Your task to perform on an android device: Show me recent news Image 0: 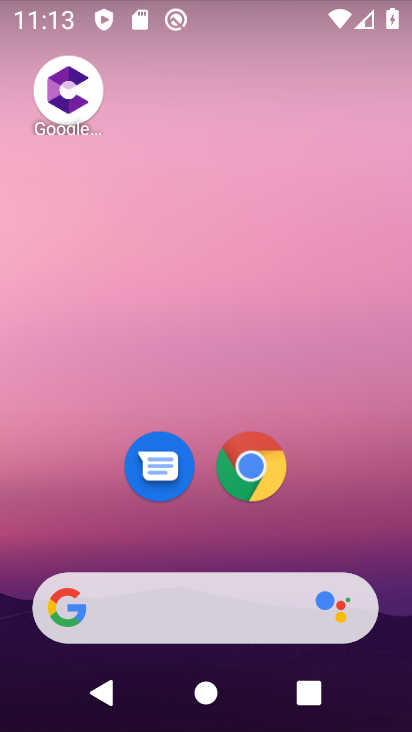
Step 0: drag from (209, 543) to (260, 180)
Your task to perform on an android device: Show me recent news Image 1: 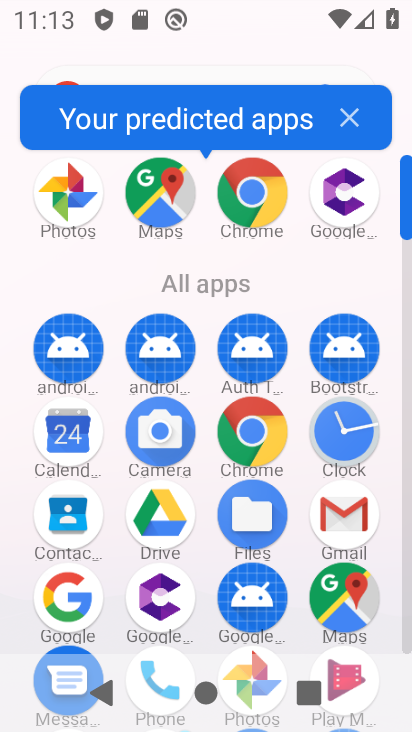
Step 1: click (69, 589)
Your task to perform on an android device: Show me recent news Image 2: 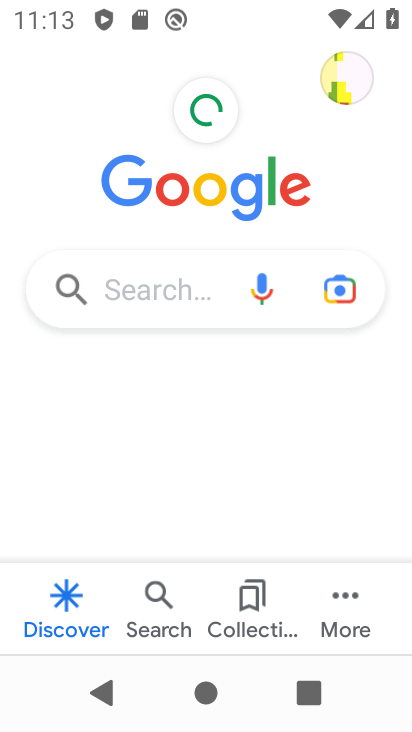
Step 2: click (118, 291)
Your task to perform on an android device: Show me recent news Image 3: 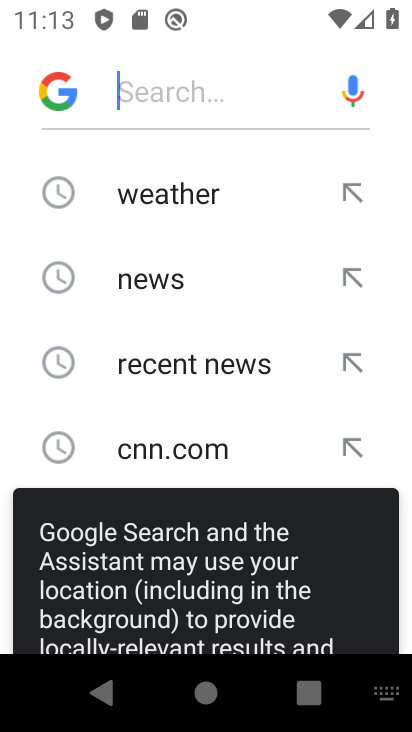
Step 3: click (154, 360)
Your task to perform on an android device: Show me recent news Image 4: 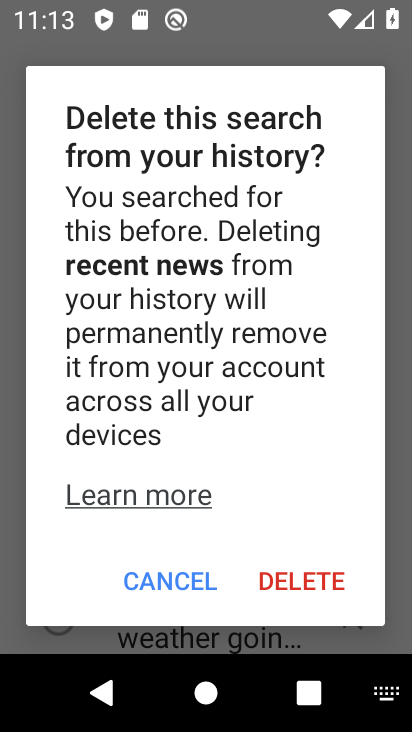
Step 4: click (188, 571)
Your task to perform on an android device: Show me recent news Image 5: 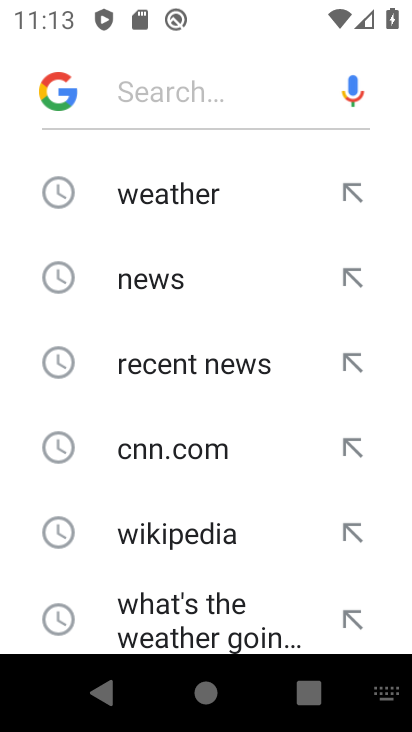
Step 5: click (182, 372)
Your task to perform on an android device: Show me recent news Image 6: 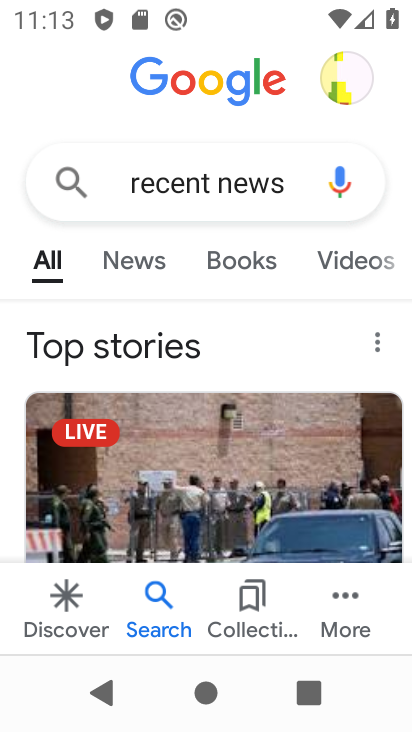
Step 6: task complete